Your task to perform on an android device: move a message to another label in the gmail app Image 0: 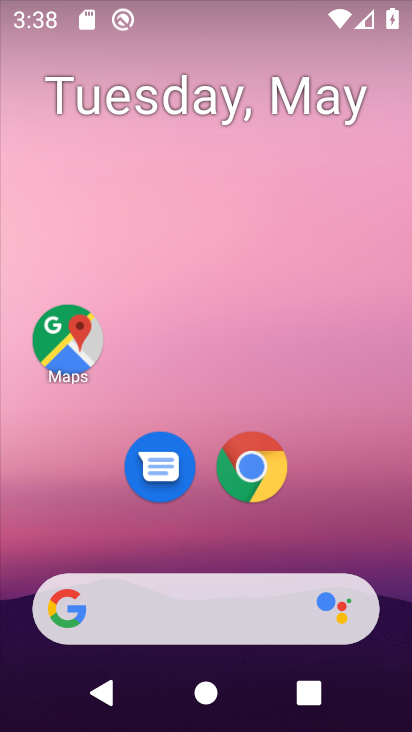
Step 0: drag from (248, 402) to (197, 71)
Your task to perform on an android device: move a message to another label in the gmail app Image 1: 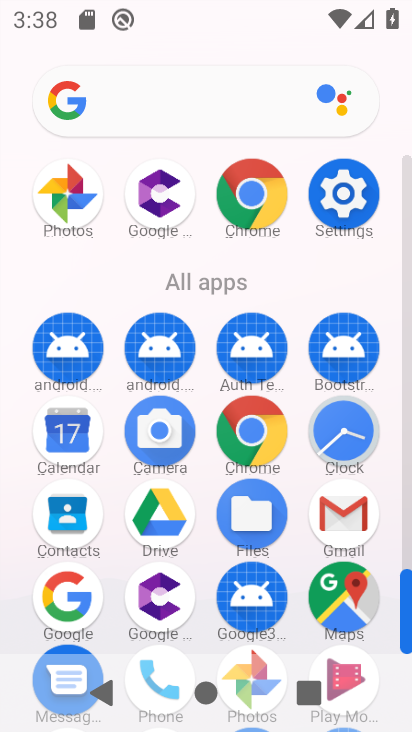
Step 1: click (329, 527)
Your task to perform on an android device: move a message to another label in the gmail app Image 2: 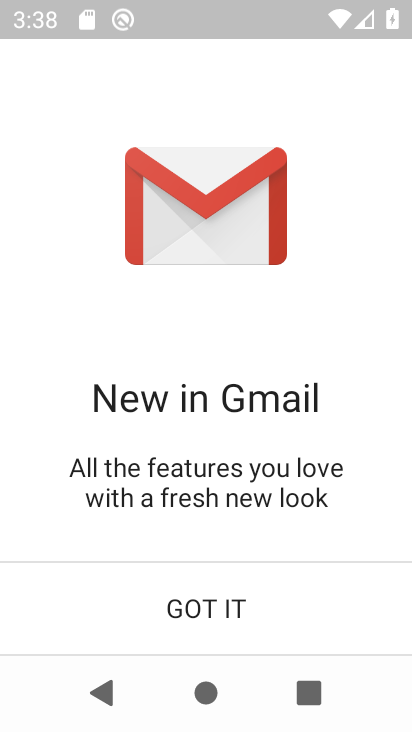
Step 2: click (187, 598)
Your task to perform on an android device: move a message to another label in the gmail app Image 3: 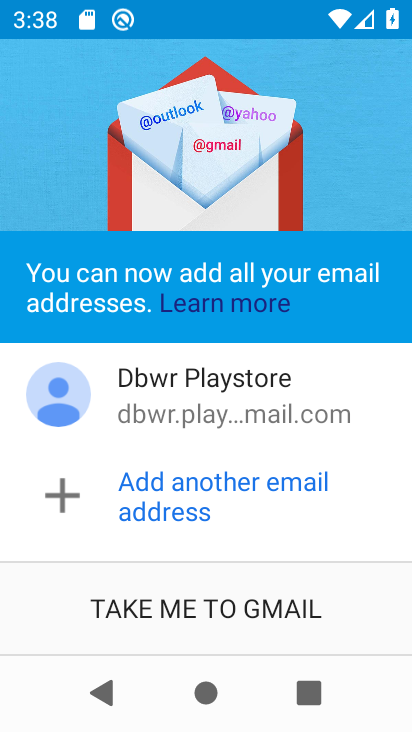
Step 3: click (166, 600)
Your task to perform on an android device: move a message to another label in the gmail app Image 4: 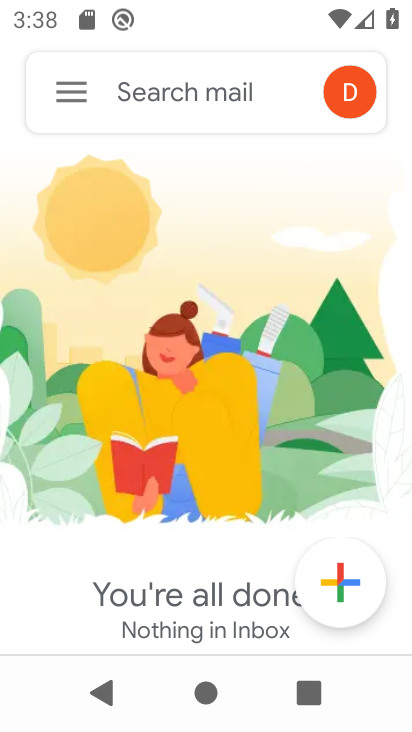
Step 4: click (68, 87)
Your task to perform on an android device: move a message to another label in the gmail app Image 5: 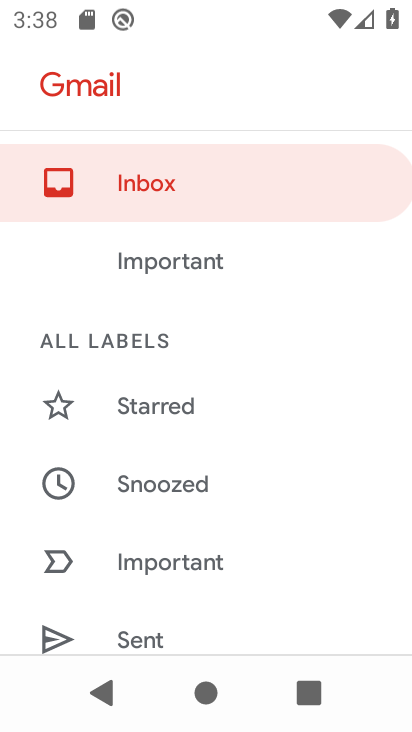
Step 5: drag from (190, 589) to (189, 326)
Your task to perform on an android device: move a message to another label in the gmail app Image 6: 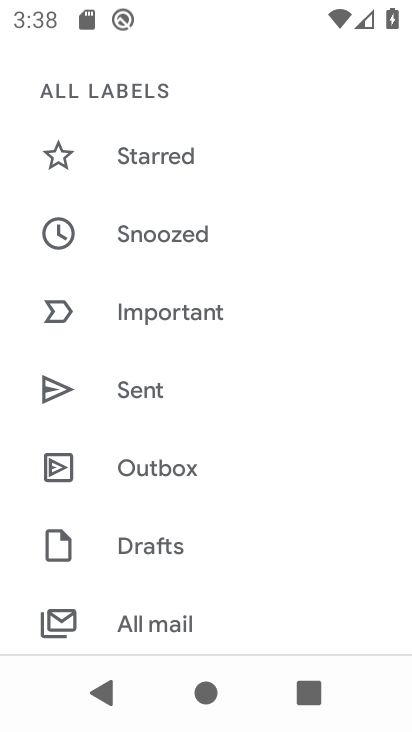
Step 6: click (151, 631)
Your task to perform on an android device: move a message to another label in the gmail app Image 7: 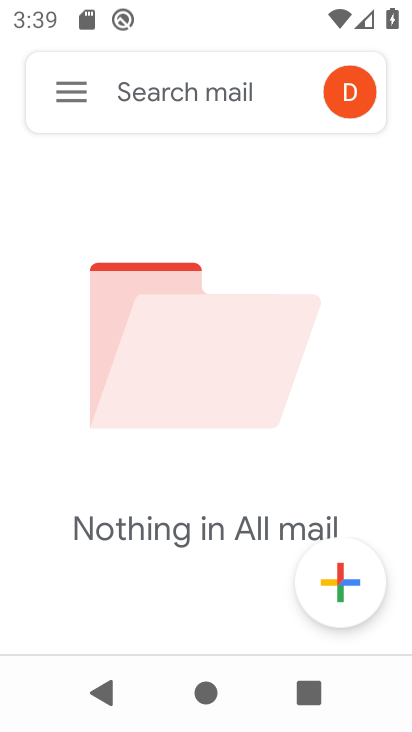
Step 7: task complete